Your task to perform on an android device: Check the news Image 0: 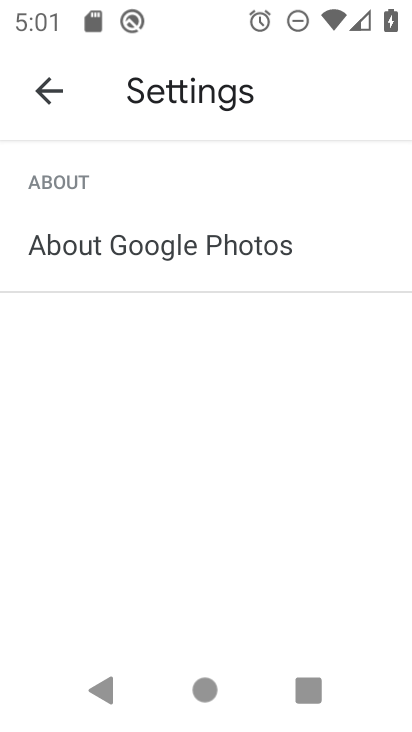
Step 0: press home button
Your task to perform on an android device: Check the news Image 1: 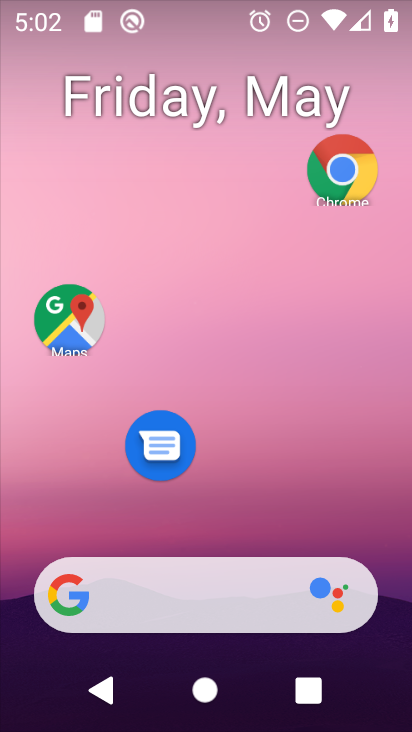
Step 1: click (221, 601)
Your task to perform on an android device: Check the news Image 2: 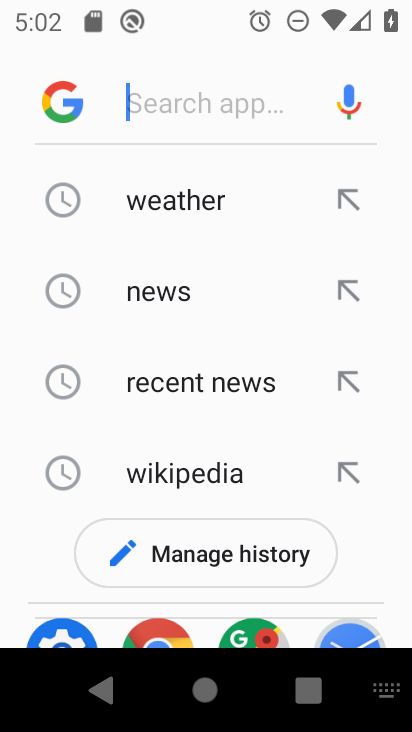
Step 2: click (166, 299)
Your task to perform on an android device: Check the news Image 3: 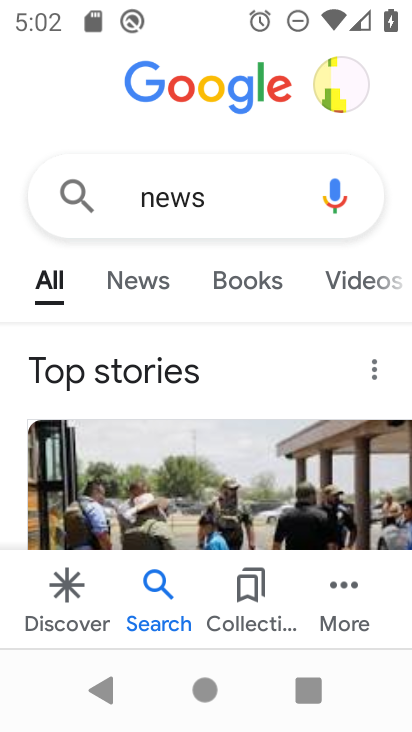
Step 3: task complete